Your task to perform on an android device: Go to accessibility settings Image 0: 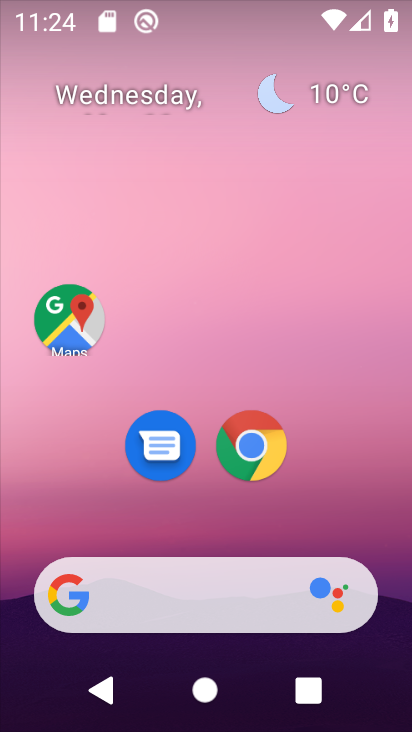
Step 0: drag from (197, 514) to (253, 84)
Your task to perform on an android device: Go to accessibility settings Image 1: 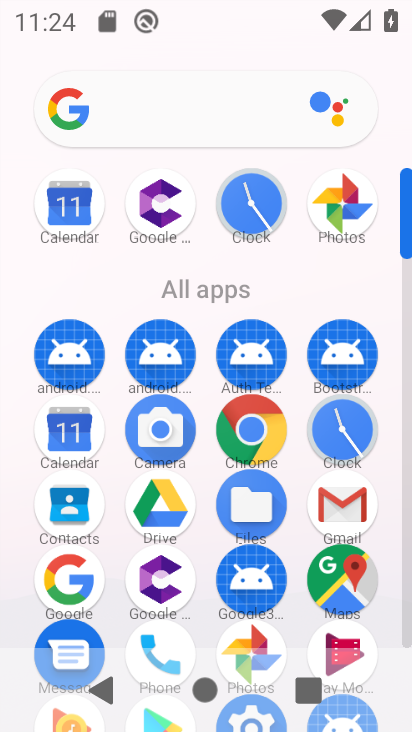
Step 1: drag from (206, 542) to (301, 157)
Your task to perform on an android device: Go to accessibility settings Image 2: 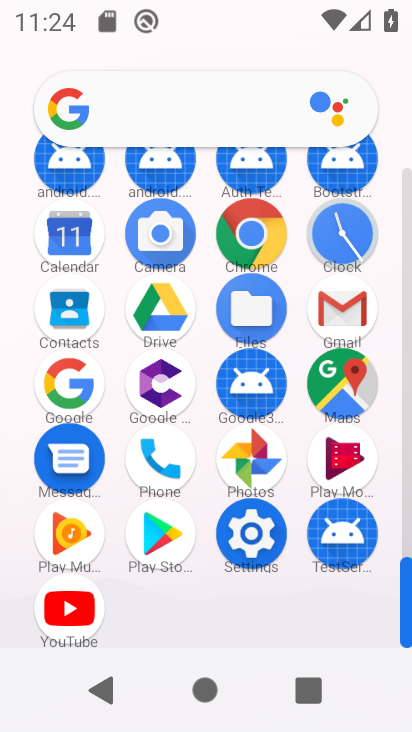
Step 2: click (260, 545)
Your task to perform on an android device: Go to accessibility settings Image 3: 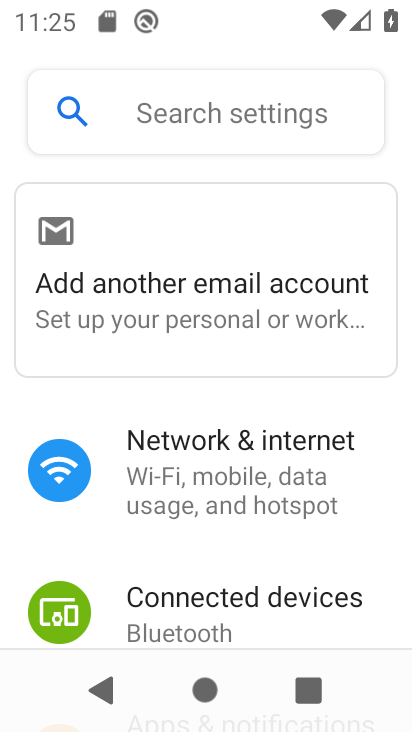
Step 3: drag from (241, 595) to (338, 80)
Your task to perform on an android device: Go to accessibility settings Image 4: 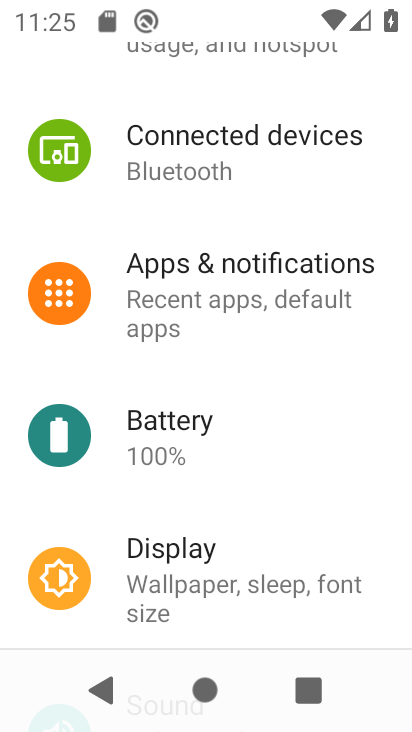
Step 4: drag from (246, 616) to (315, 140)
Your task to perform on an android device: Go to accessibility settings Image 5: 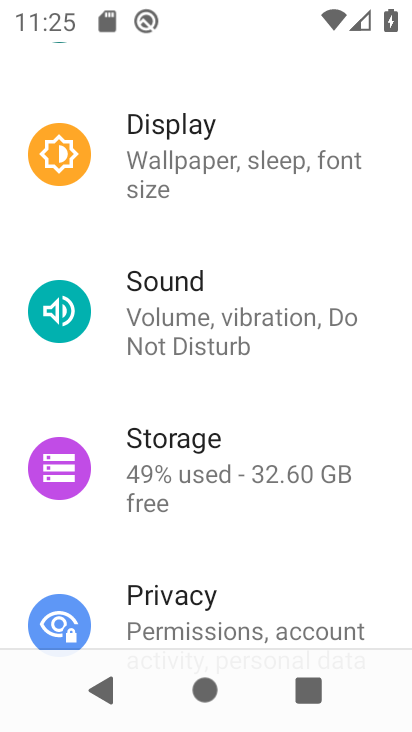
Step 5: drag from (202, 579) to (293, 98)
Your task to perform on an android device: Go to accessibility settings Image 6: 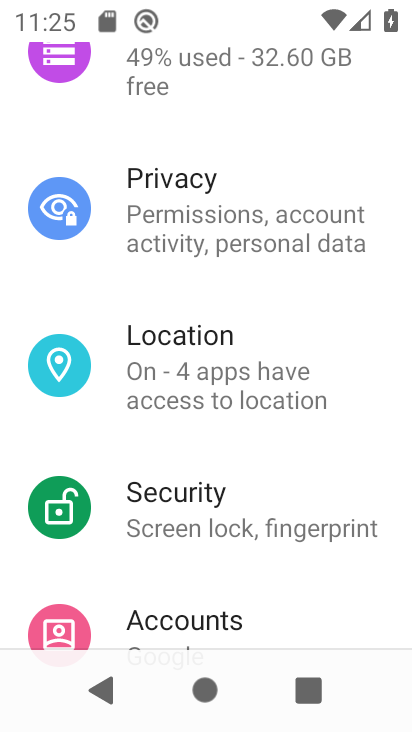
Step 6: drag from (181, 546) to (253, 194)
Your task to perform on an android device: Go to accessibility settings Image 7: 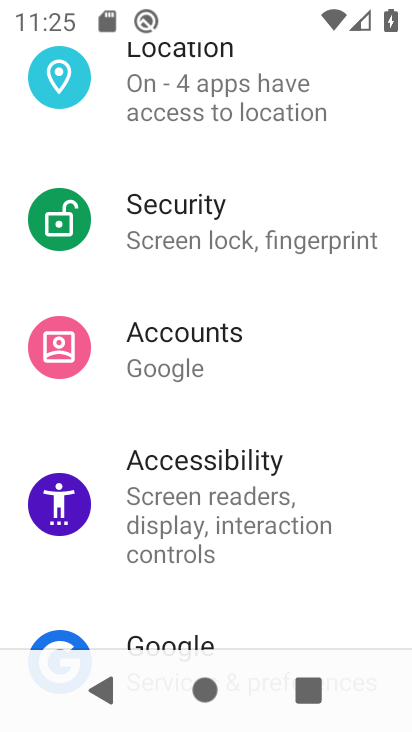
Step 7: click (221, 507)
Your task to perform on an android device: Go to accessibility settings Image 8: 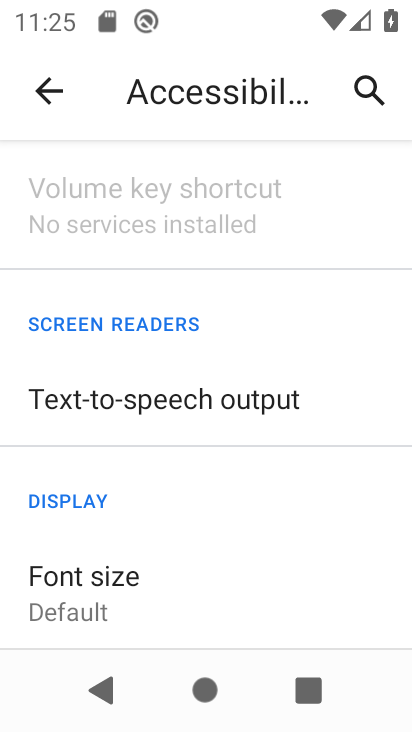
Step 8: task complete